Your task to perform on an android device: Empty the shopping cart on amazon. Image 0: 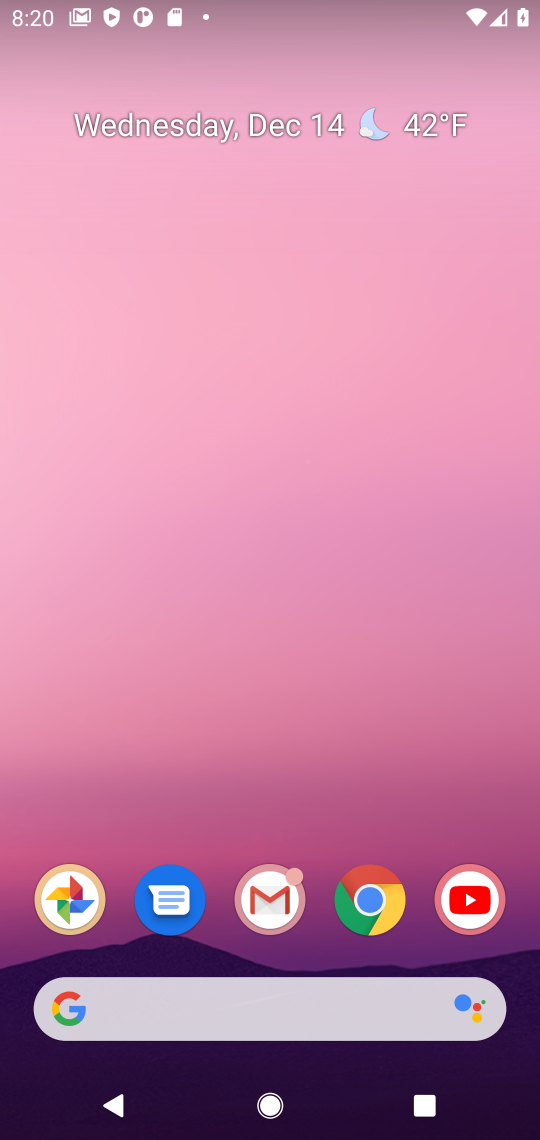
Step 0: click (367, 894)
Your task to perform on an android device: Empty the shopping cart on amazon. Image 1: 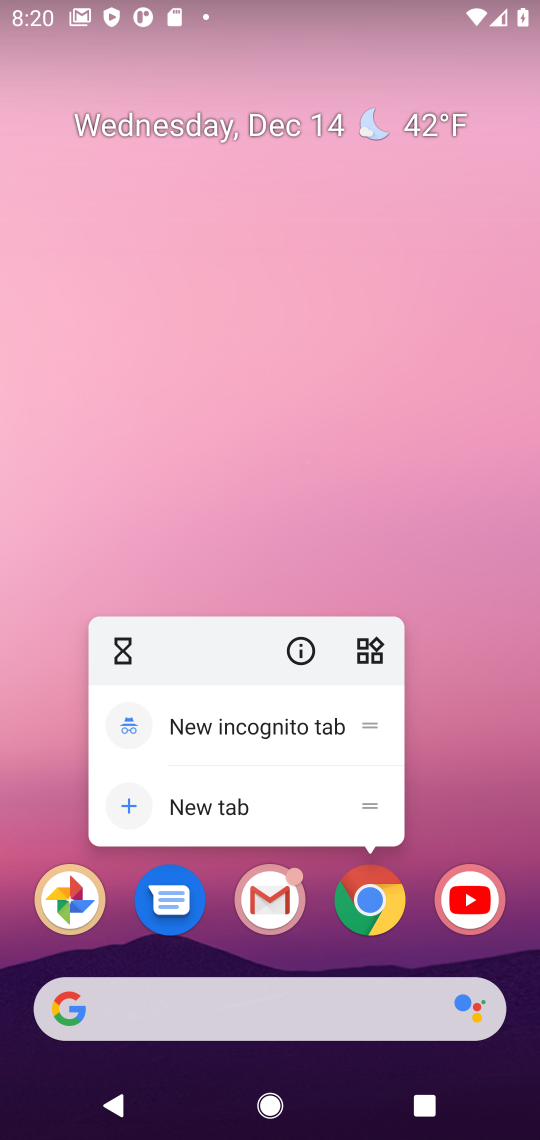
Step 1: click (367, 904)
Your task to perform on an android device: Empty the shopping cart on amazon. Image 2: 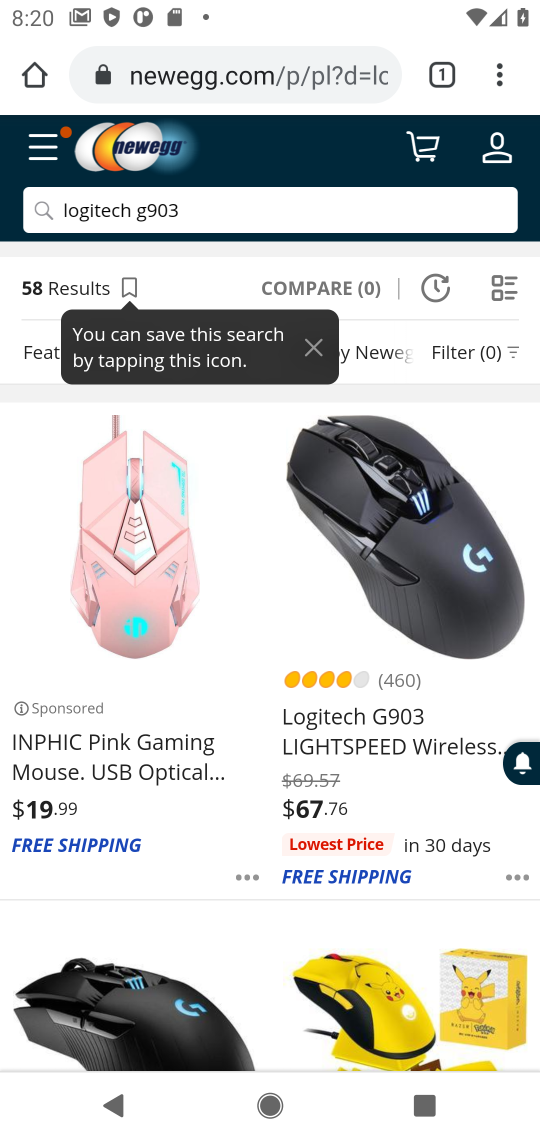
Step 2: click (206, 75)
Your task to perform on an android device: Empty the shopping cart on amazon. Image 3: 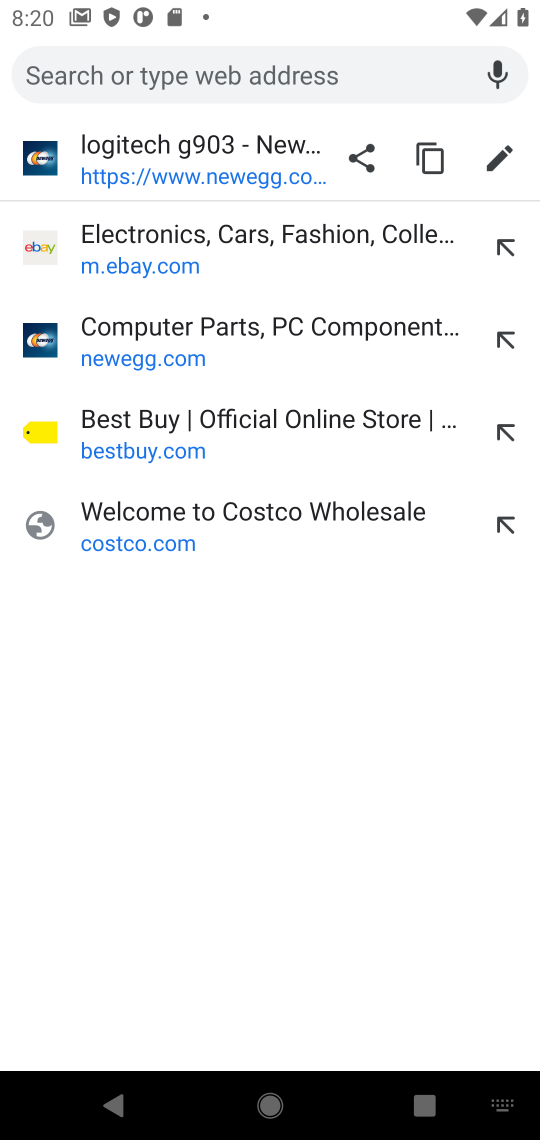
Step 3: type "amazon.com"
Your task to perform on an android device: Empty the shopping cart on amazon. Image 4: 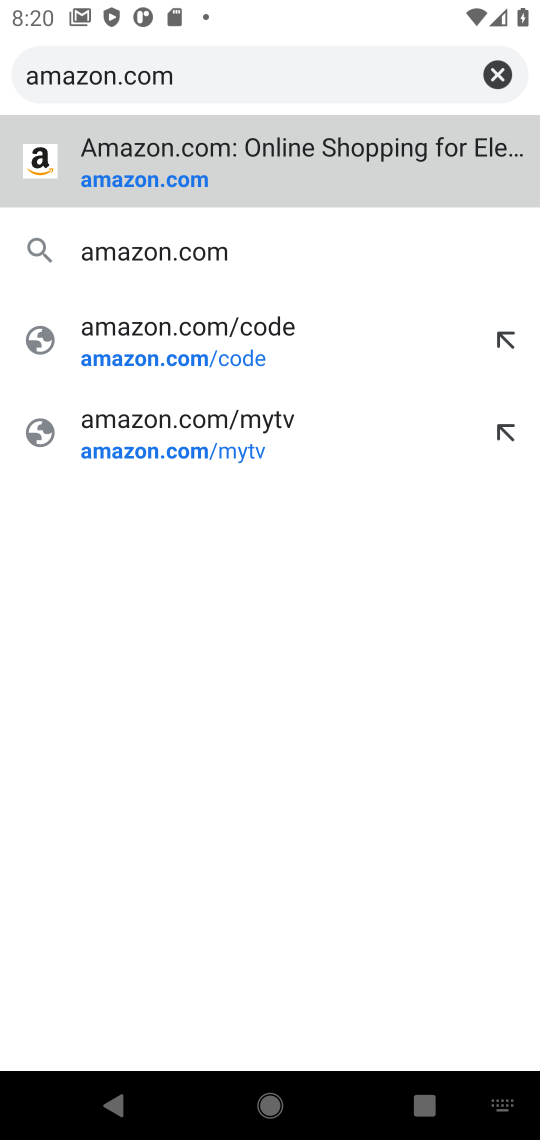
Step 4: click (114, 166)
Your task to perform on an android device: Empty the shopping cart on amazon. Image 5: 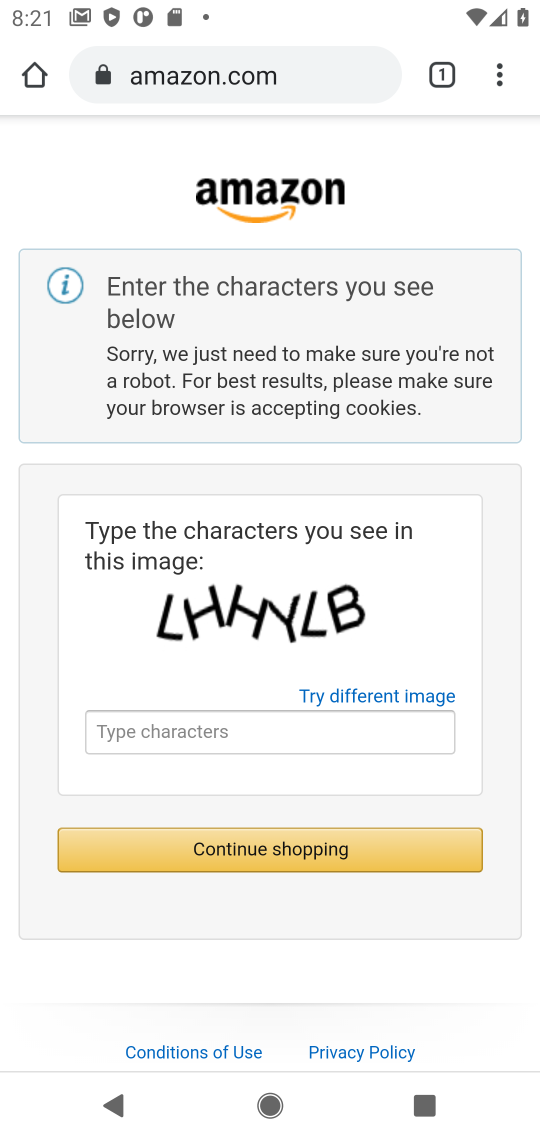
Step 5: click (139, 733)
Your task to perform on an android device: Empty the shopping cart on amazon. Image 6: 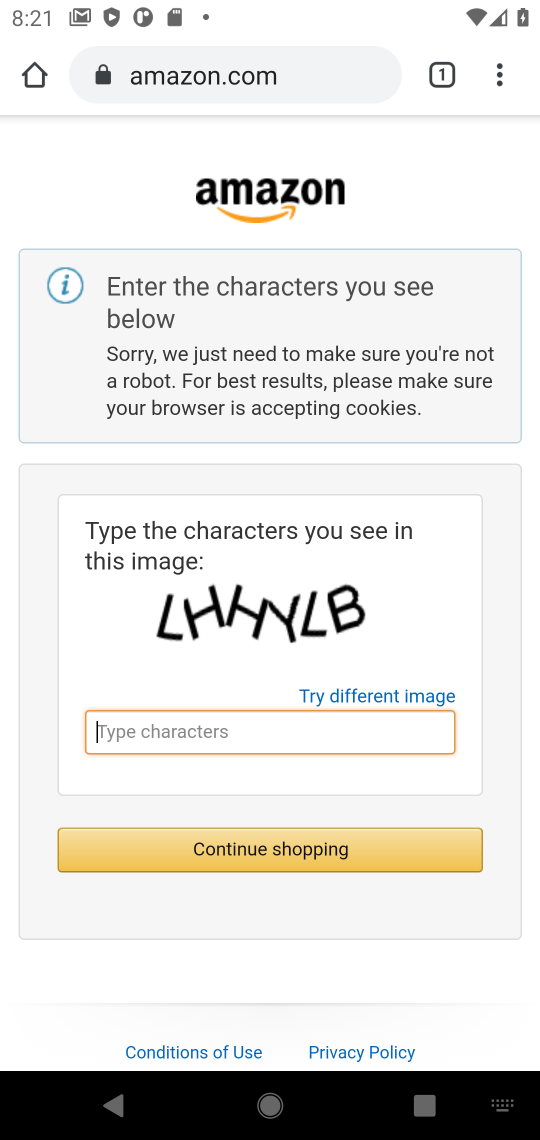
Step 6: type "LHHYLB"
Your task to perform on an android device: Empty the shopping cart on amazon. Image 7: 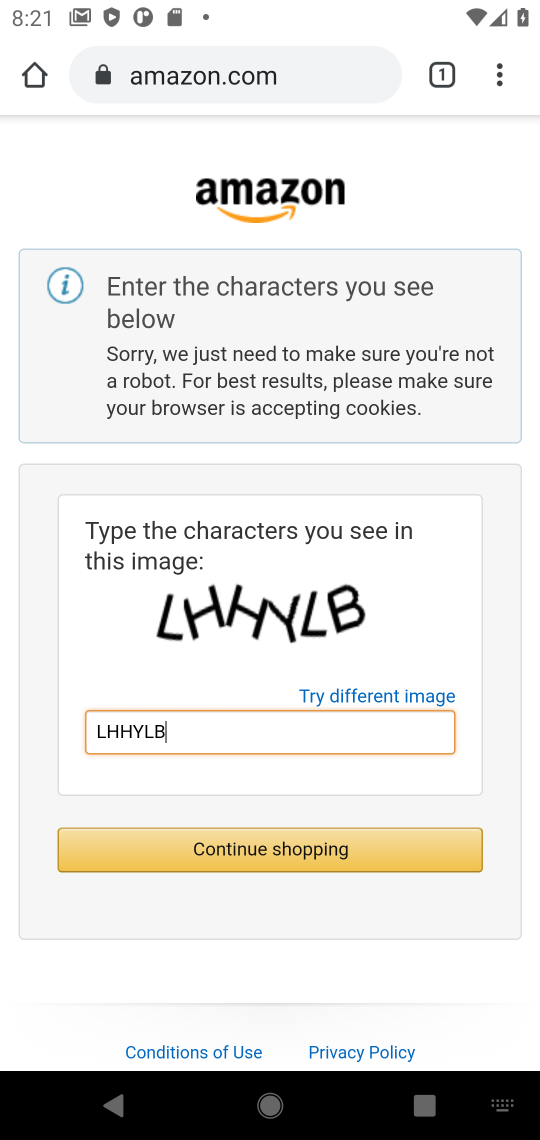
Step 7: click (311, 855)
Your task to perform on an android device: Empty the shopping cart on amazon. Image 8: 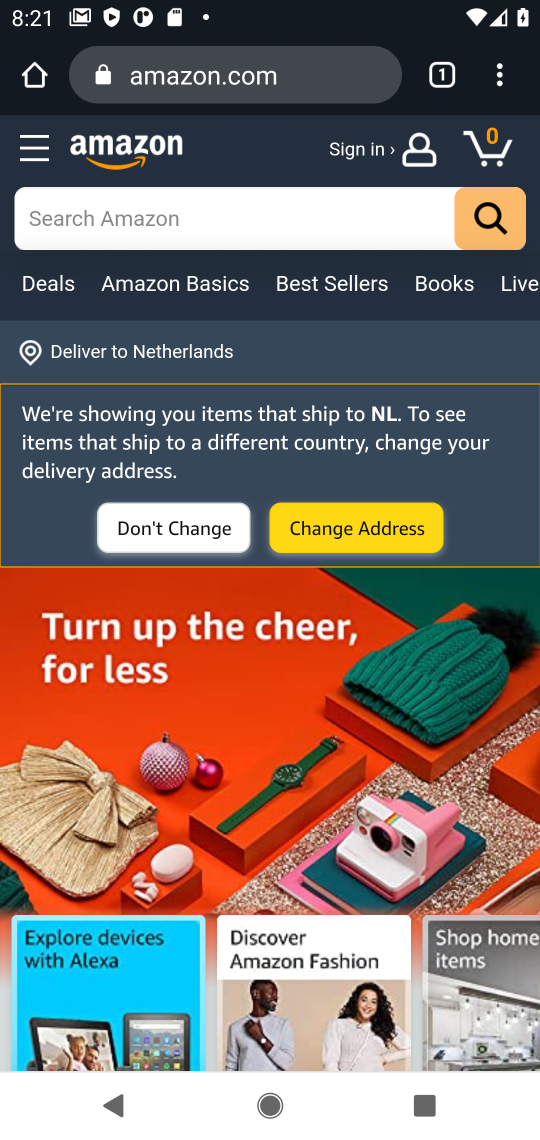
Step 8: click (495, 146)
Your task to perform on an android device: Empty the shopping cart on amazon. Image 9: 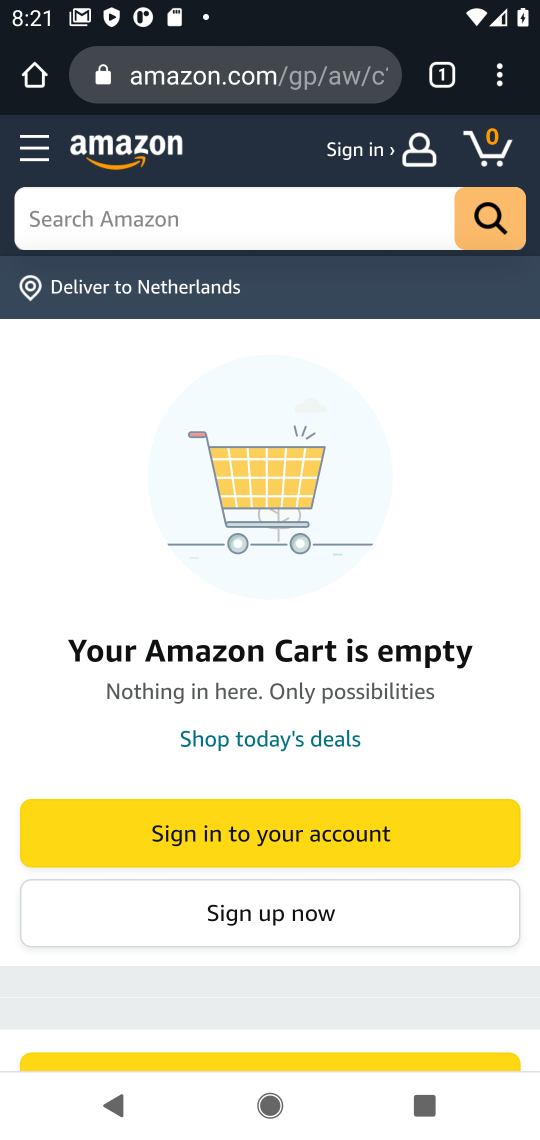
Step 9: task complete